Your task to perform on an android device: Show the shopping cart on ebay. Add asus zenbook to the cart on ebay Image 0: 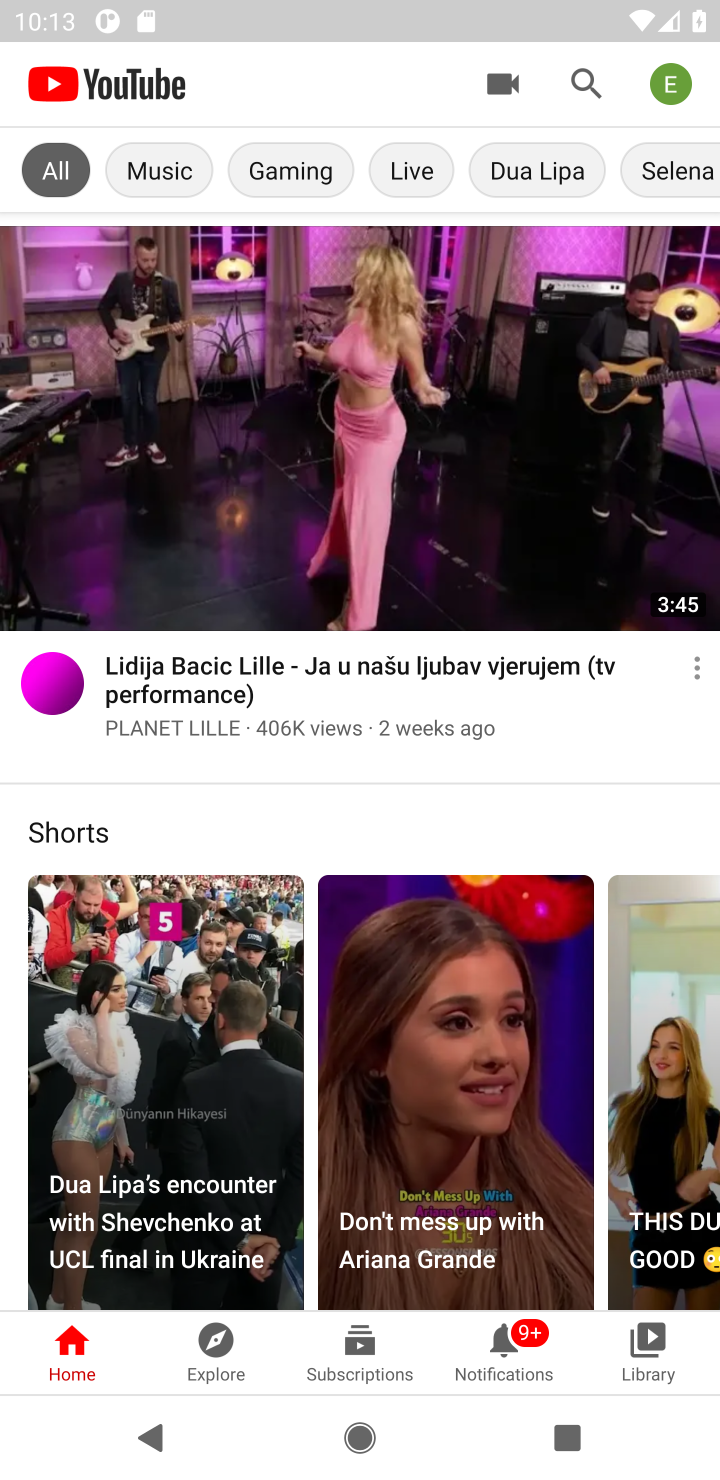
Step 0: press home button
Your task to perform on an android device: Show the shopping cart on ebay. Add asus zenbook to the cart on ebay Image 1: 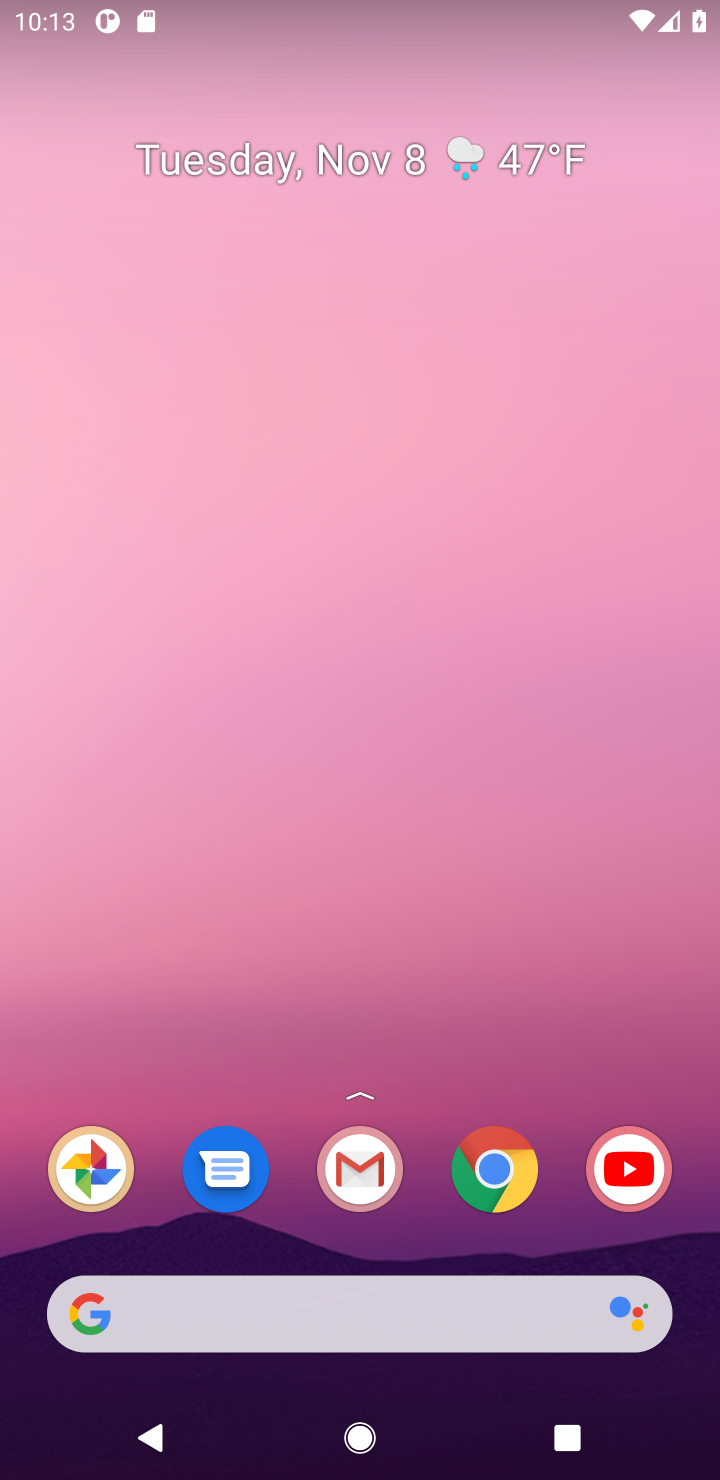
Step 1: click (495, 1170)
Your task to perform on an android device: Show the shopping cart on ebay. Add asus zenbook to the cart on ebay Image 2: 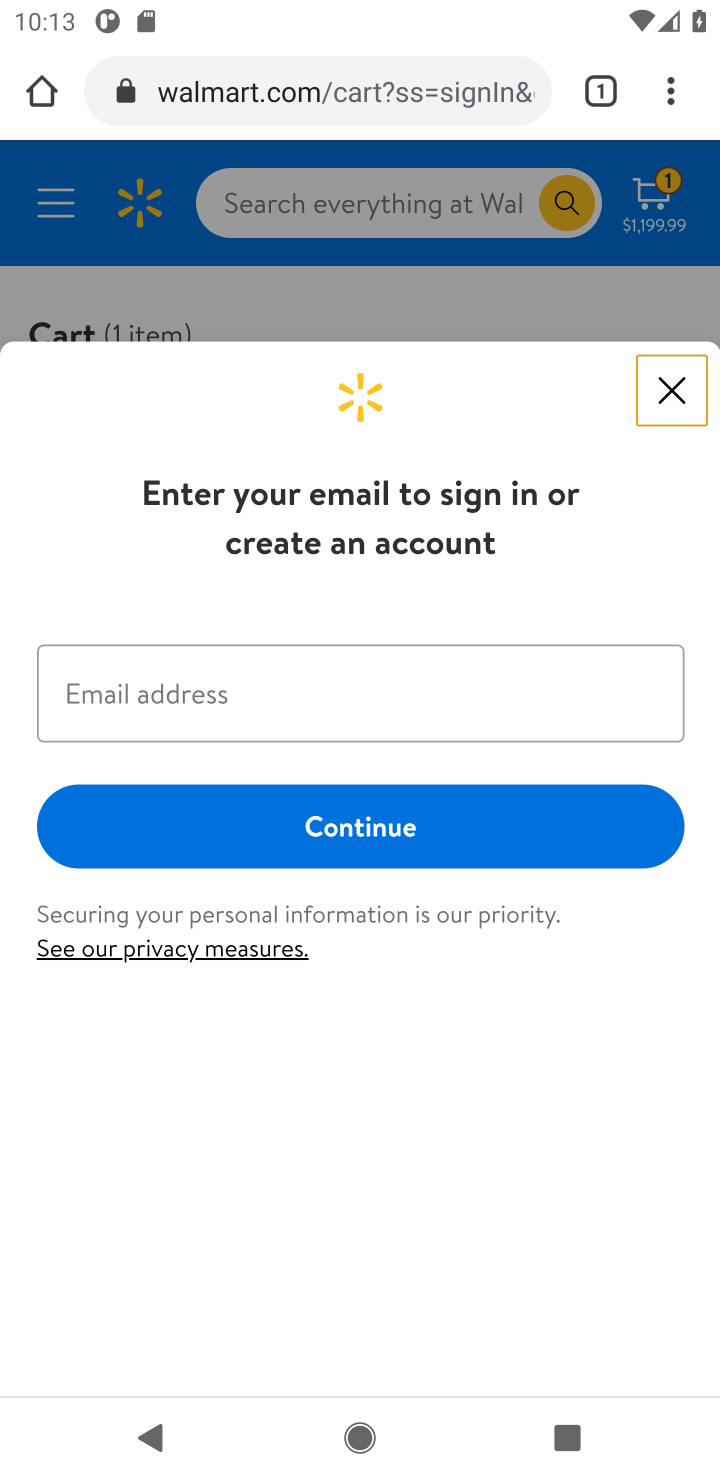
Step 2: click (403, 95)
Your task to perform on an android device: Show the shopping cart on ebay. Add asus zenbook to the cart on ebay Image 3: 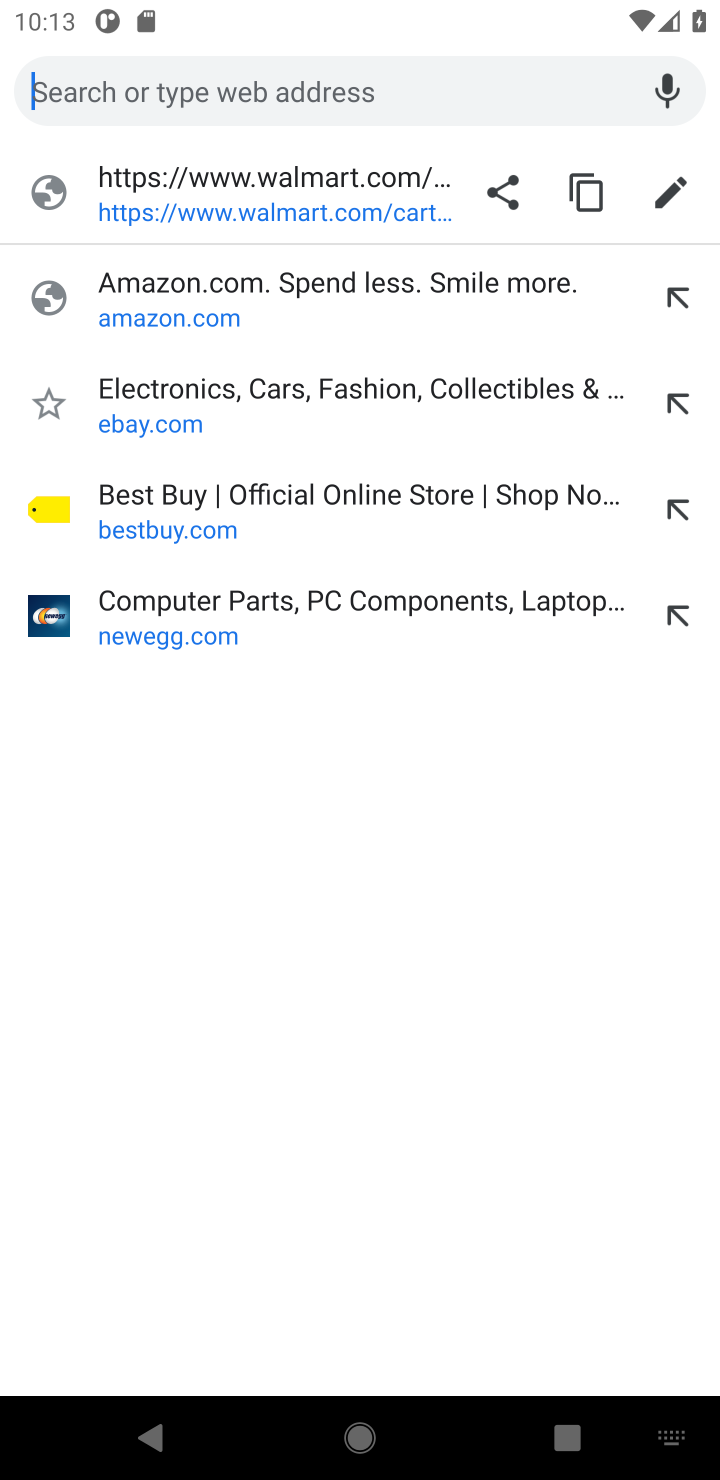
Step 3: type "ebay"
Your task to perform on an android device: Show the shopping cart on ebay. Add asus zenbook to the cart on ebay Image 4: 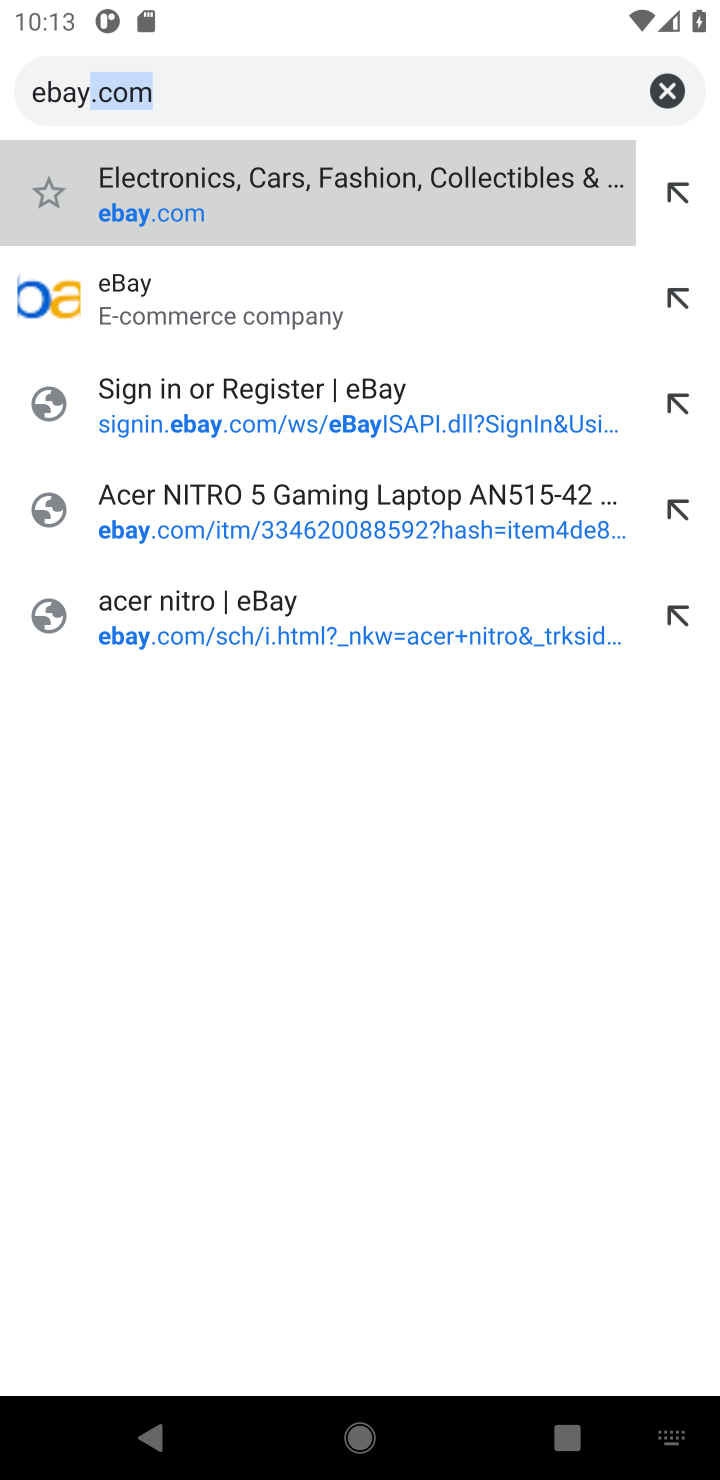
Step 4: click (429, 68)
Your task to perform on an android device: Show the shopping cart on ebay. Add asus zenbook to the cart on ebay Image 5: 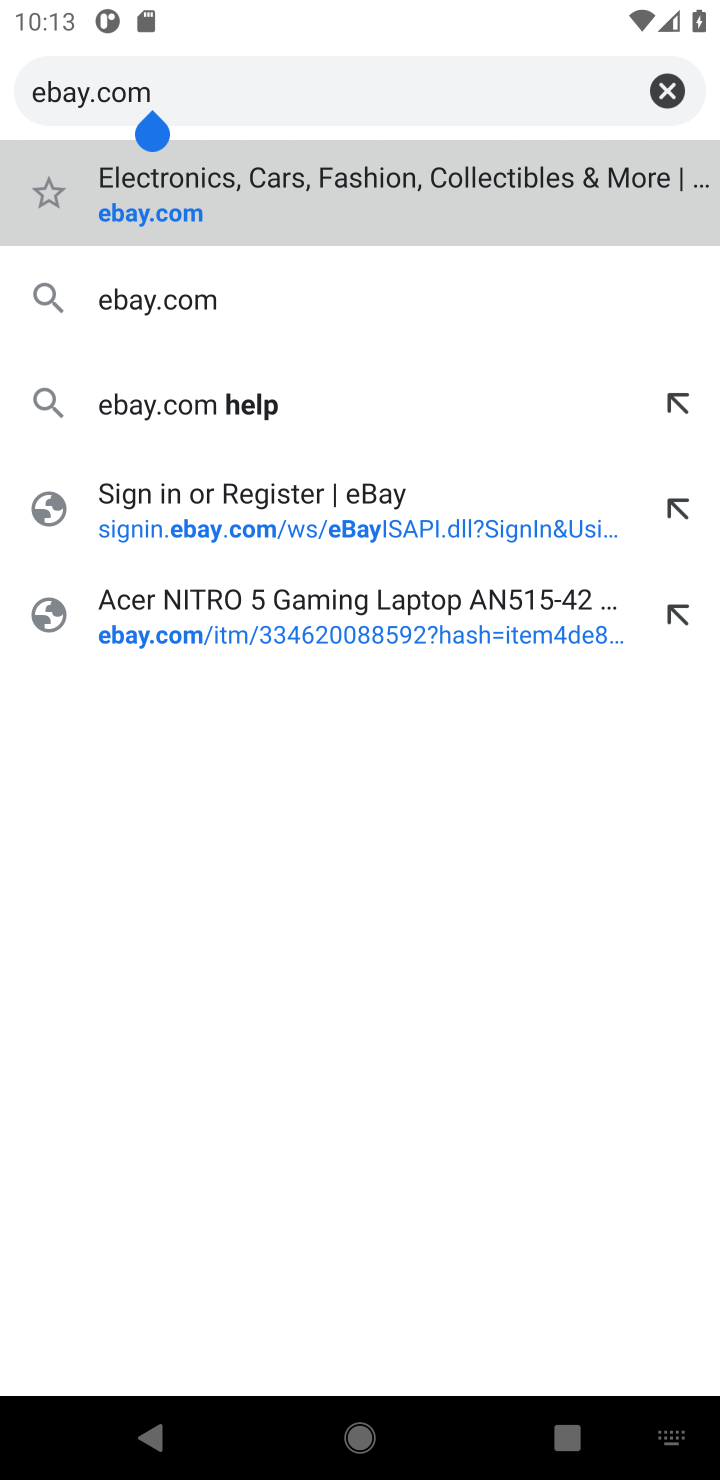
Step 5: click (211, 288)
Your task to perform on an android device: Show the shopping cart on ebay. Add asus zenbook to the cart on ebay Image 6: 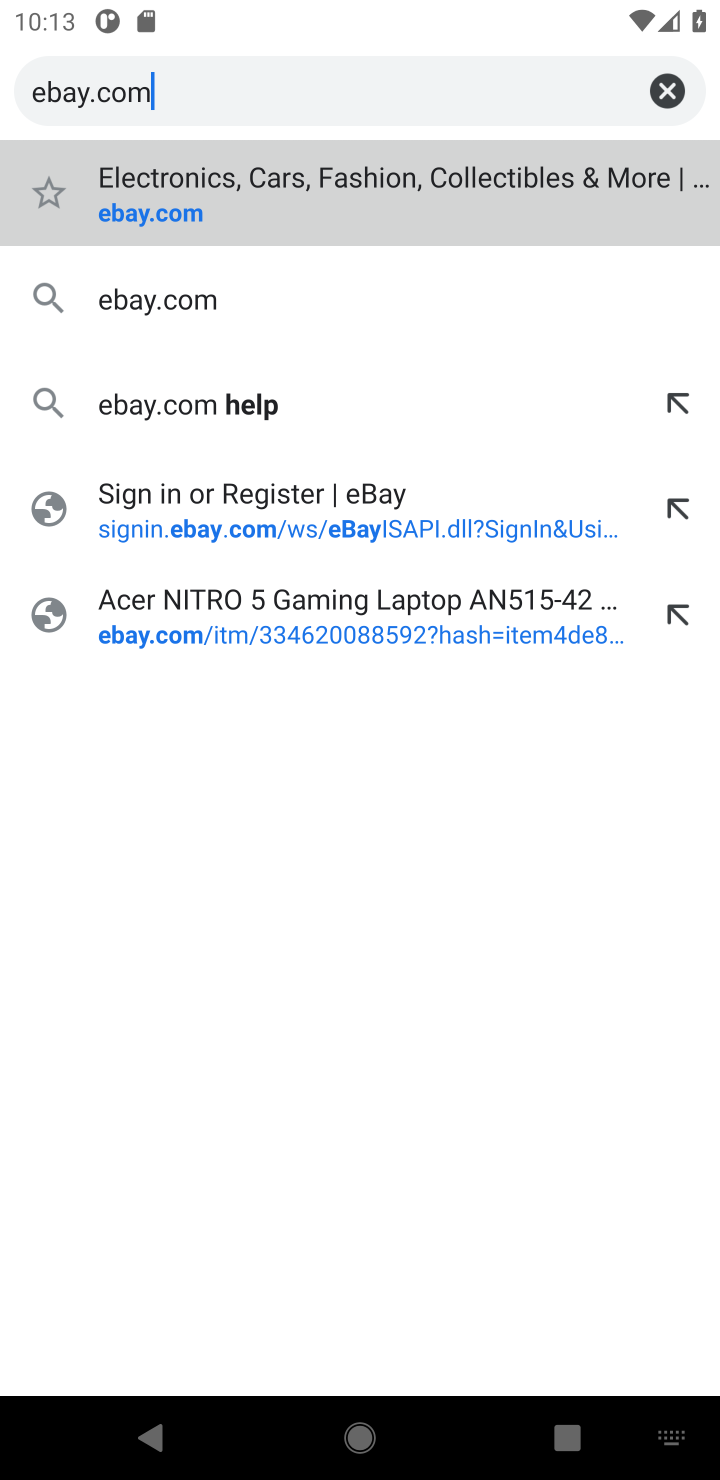
Step 6: click (156, 306)
Your task to perform on an android device: Show the shopping cart on ebay. Add asus zenbook to the cart on ebay Image 7: 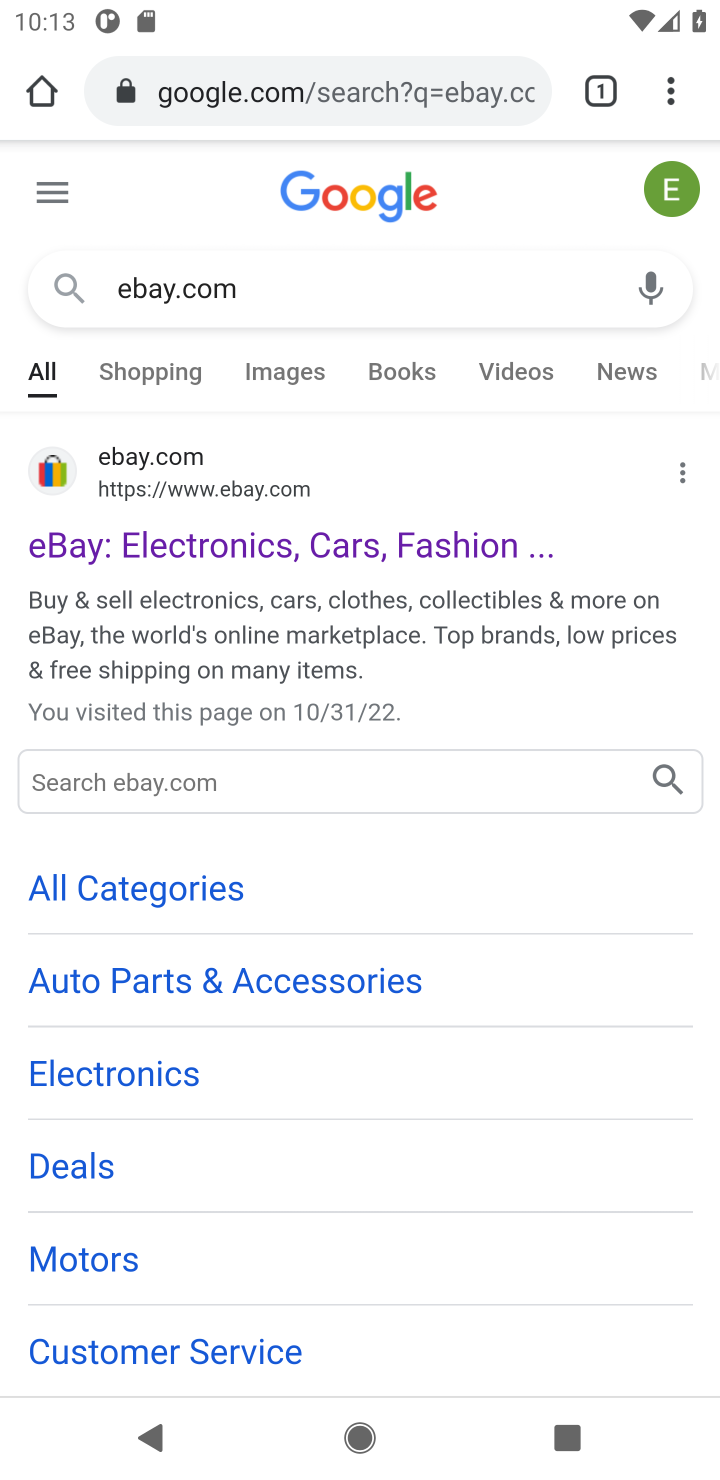
Step 7: click (230, 481)
Your task to perform on an android device: Show the shopping cart on ebay. Add asus zenbook to the cart on ebay Image 8: 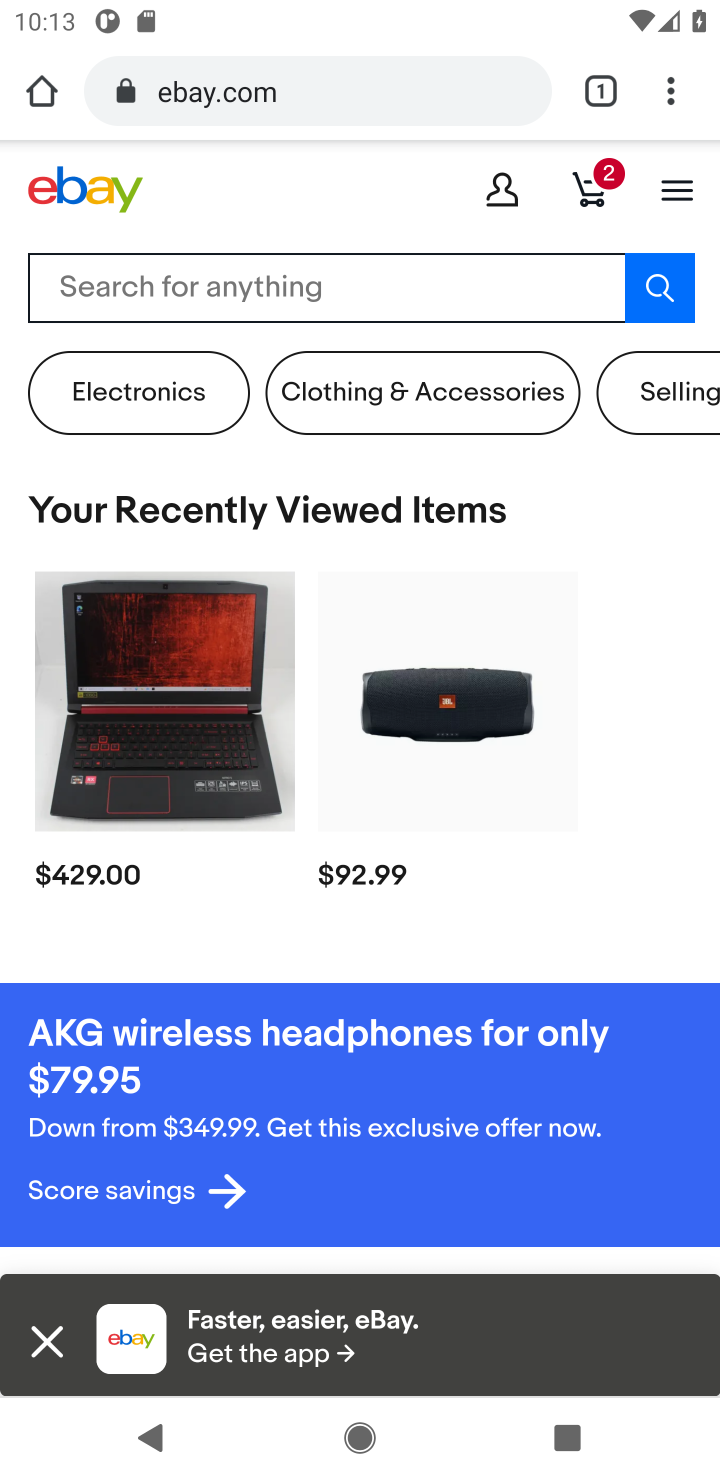
Step 8: click (590, 201)
Your task to perform on an android device: Show the shopping cart on ebay. Add asus zenbook to the cart on ebay Image 9: 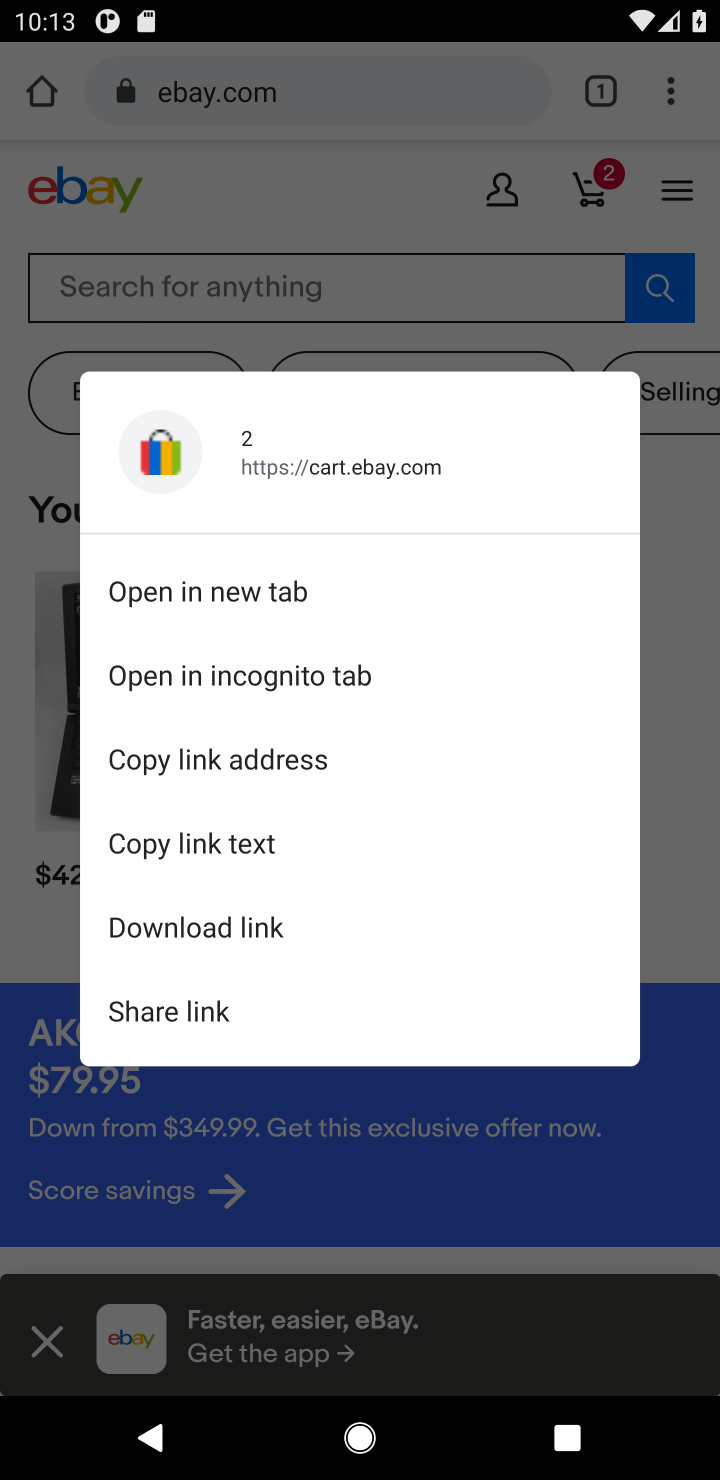
Step 9: click (330, 274)
Your task to perform on an android device: Show the shopping cart on ebay. Add asus zenbook to the cart on ebay Image 10: 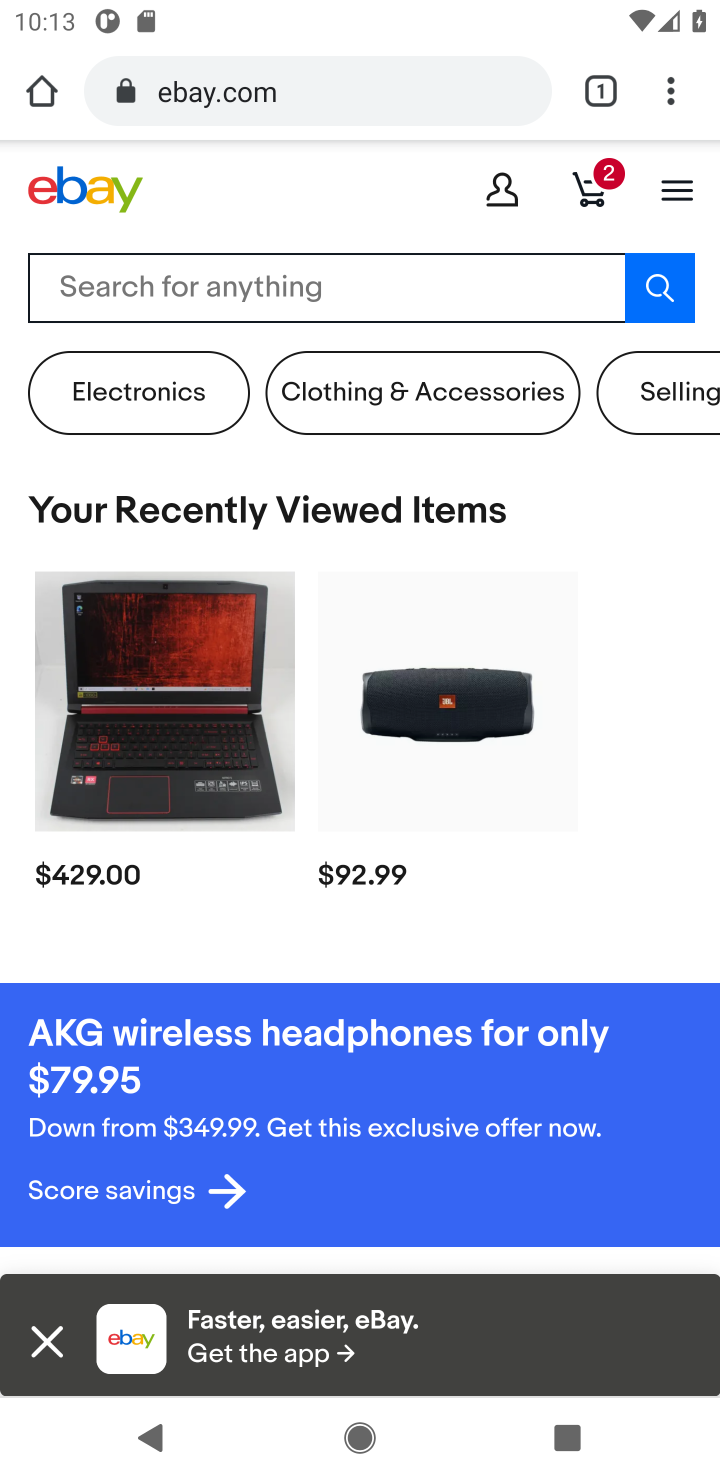
Step 10: click (330, 274)
Your task to perform on an android device: Show the shopping cart on ebay. Add asus zenbook to the cart on ebay Image 11: 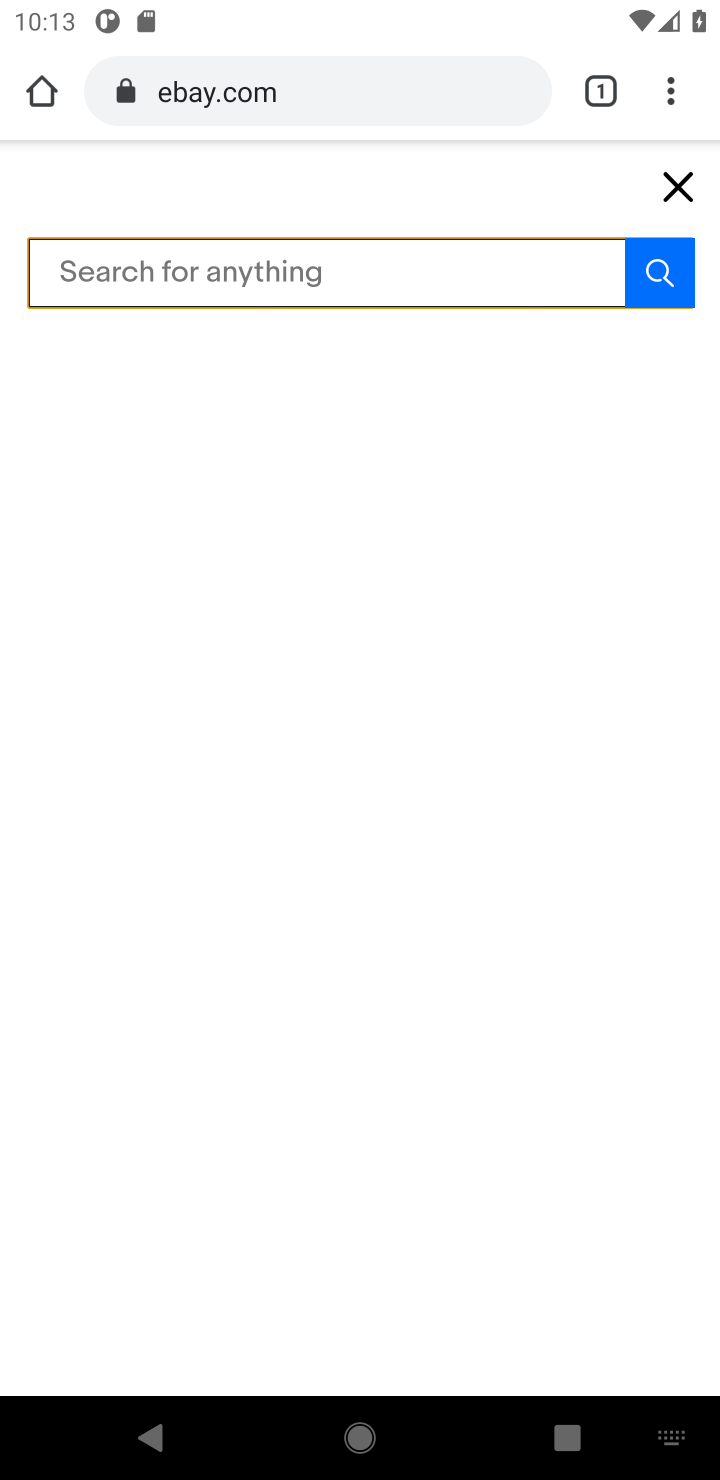
Step 11: type "asus zenbook"
Your task to perform on an android device: Show the shopping cart on ebay. Add asus zenbook to the cart on ebay Image 12: 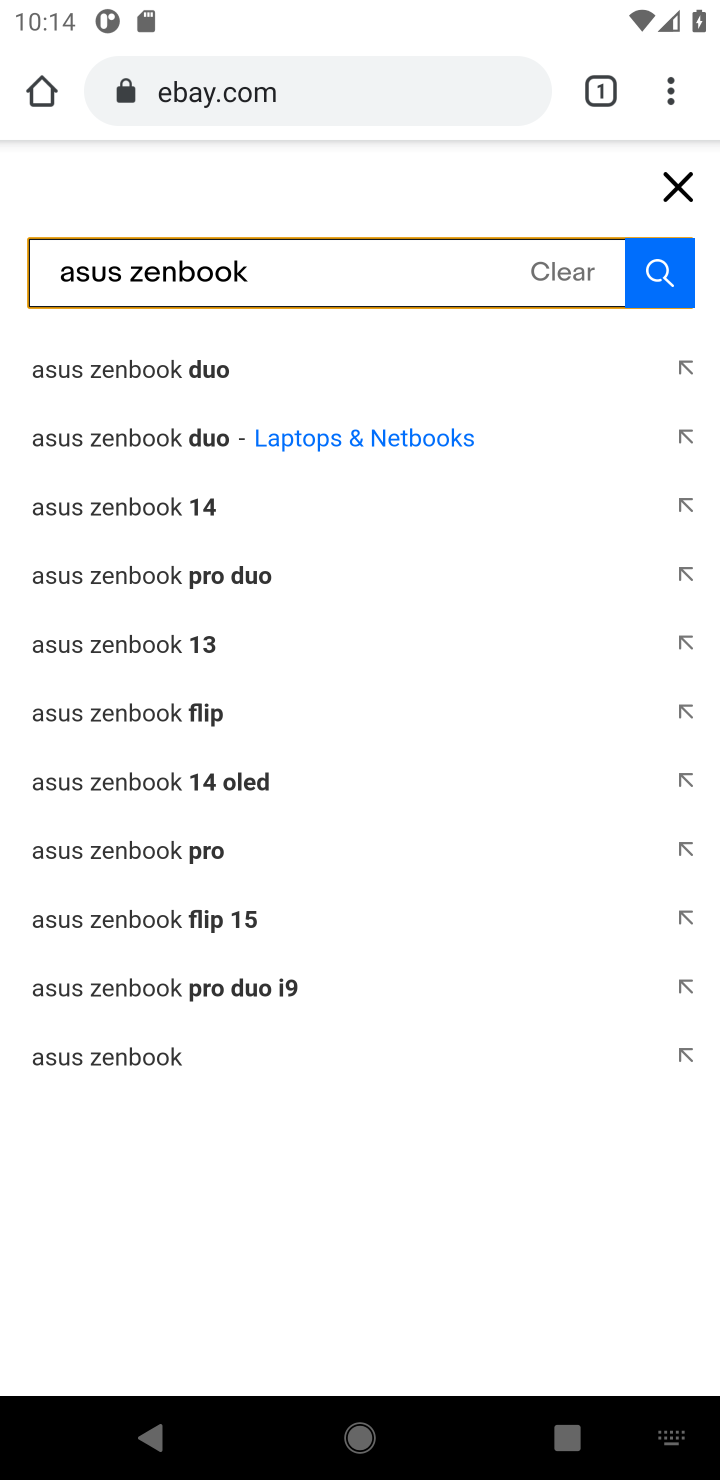
Step 12: click (151, 1046)
Your task to perform on an android device: Show the shopping cart on ebay. Add asus zenbook to the cart on ebay Image 13: 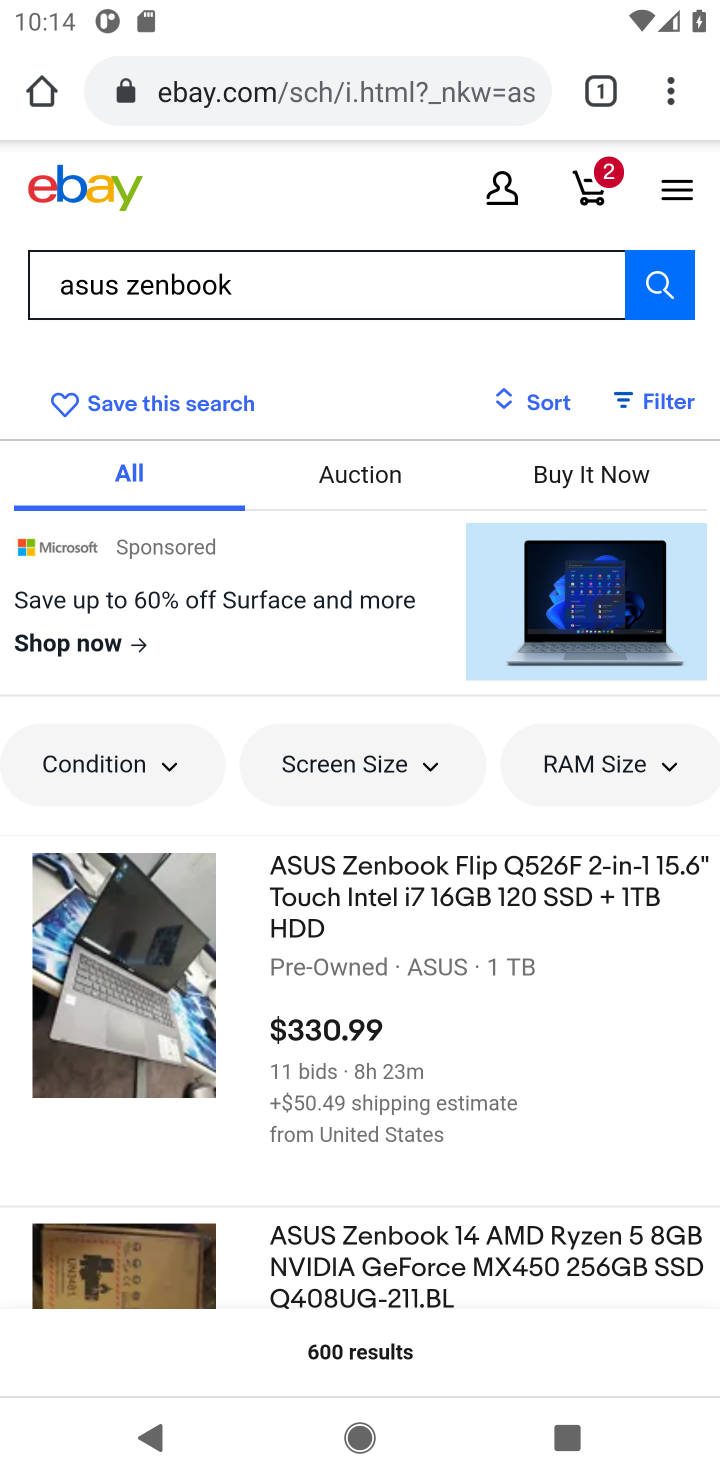
Step 13: click (129, 965)
Your task to perform on an android device: Show the shopping cart on ebay. Add asus zenbook to the cart on ebay Image 14: 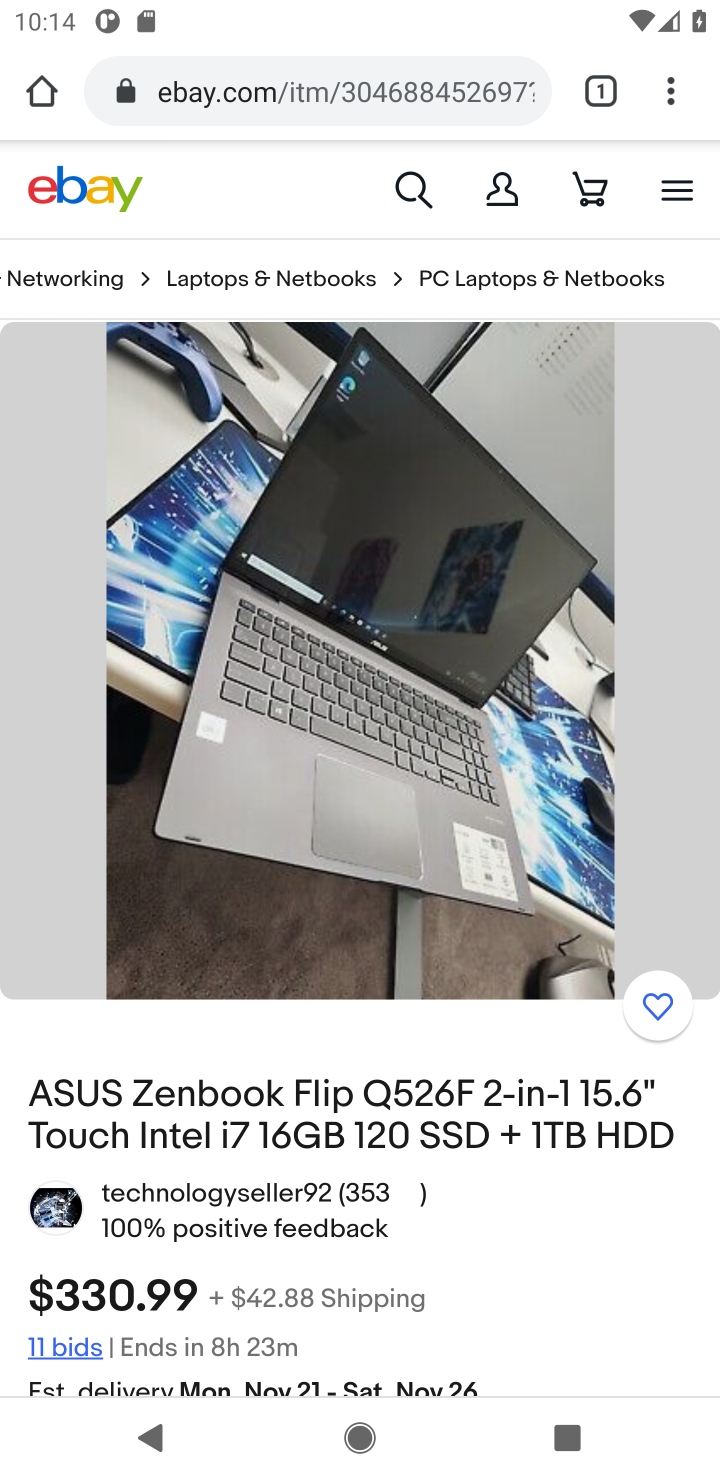
Step 14: drag from (571, 1048) to (495, 577)
Your task to perform on an android device: Show the shopping cart on ebay. Add asus zenbook to the cart on ebay Image 15: 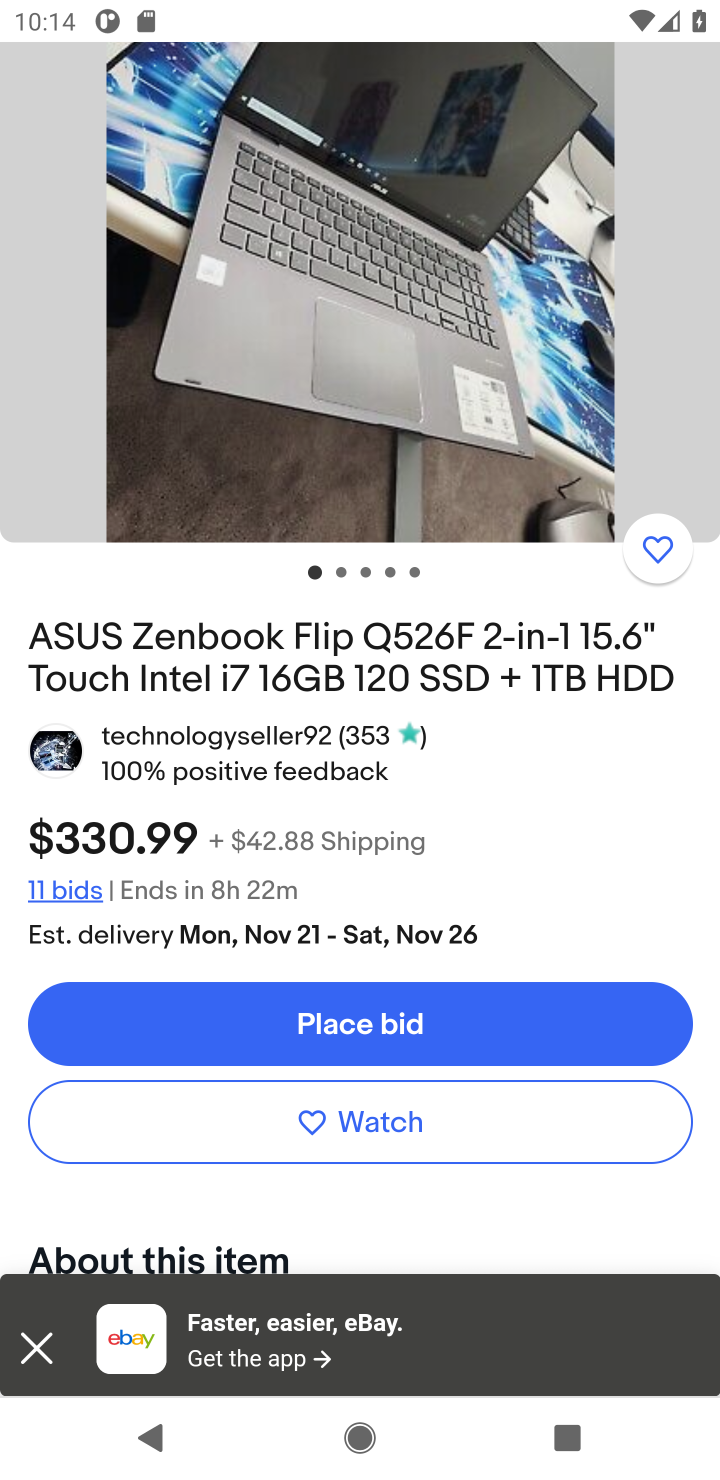
Step 15: press back button
Your task to perform on an android device: Show the shopping cart on ebay. Add asus zenbook to the cart on ebay Image 16: 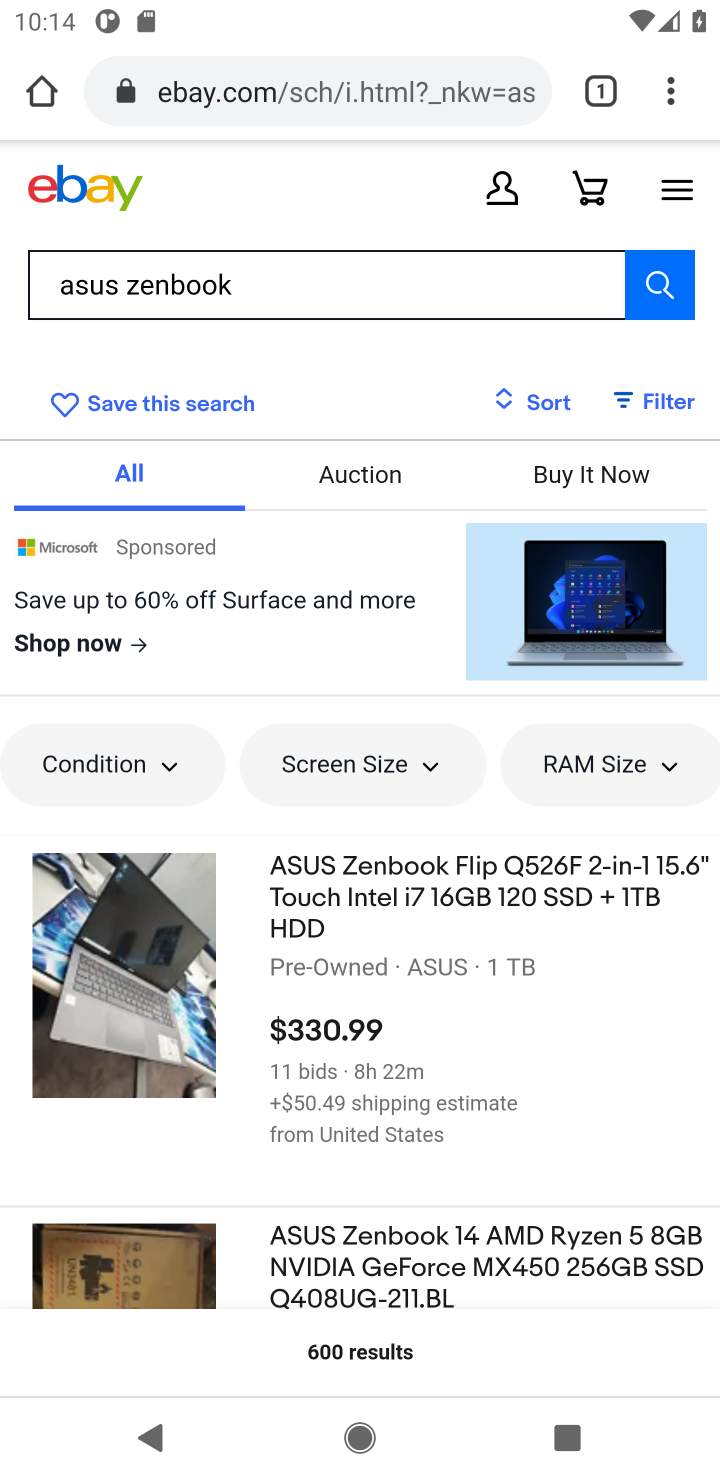
Step 16: drag from (152, 1132) to (212, 555)
Your task to perform on an android device: Show the shopping cart on ebay. Add asus zenbook to the cart on ebay Image 17: 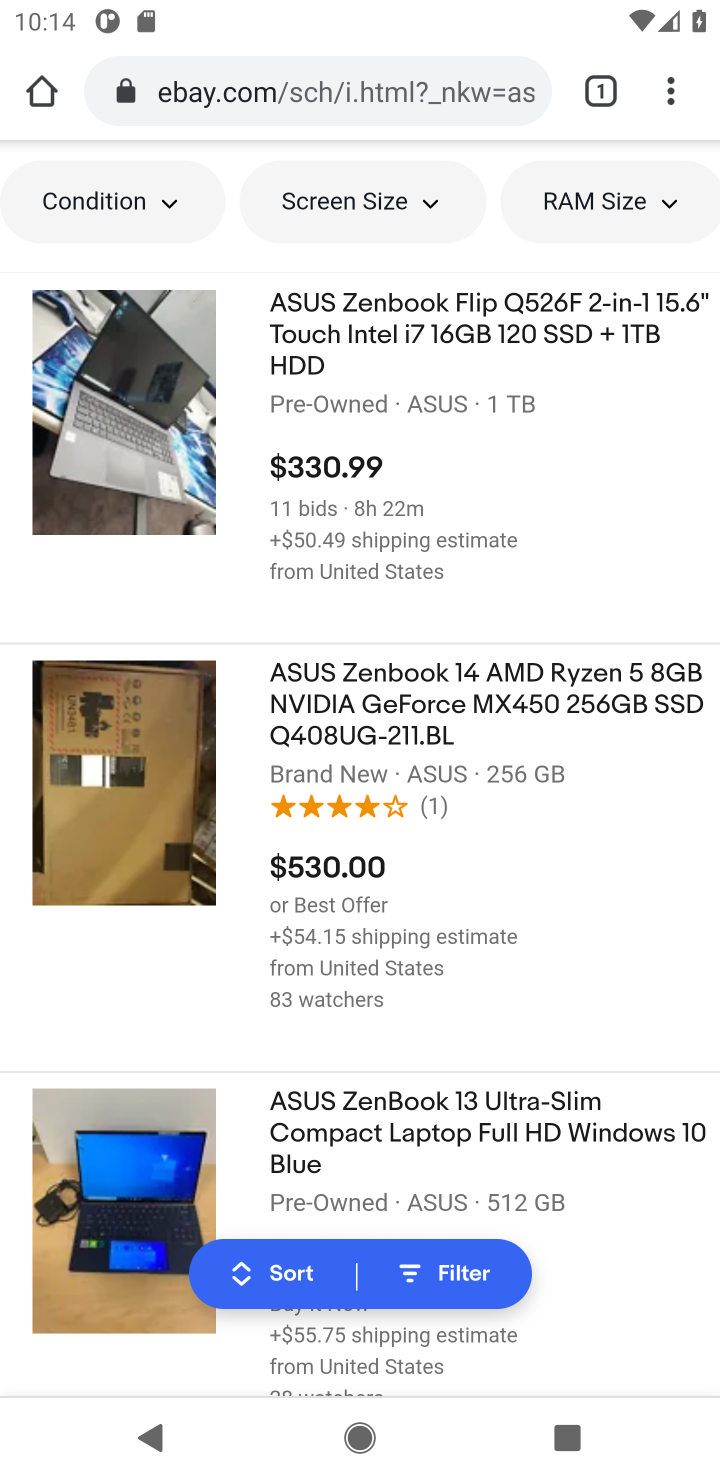
Step 17: click (129, 791)
Your task to perform on an android device: Show the shopping cart on ebay. Add asus zenbook to the cart on ebay Image 18: 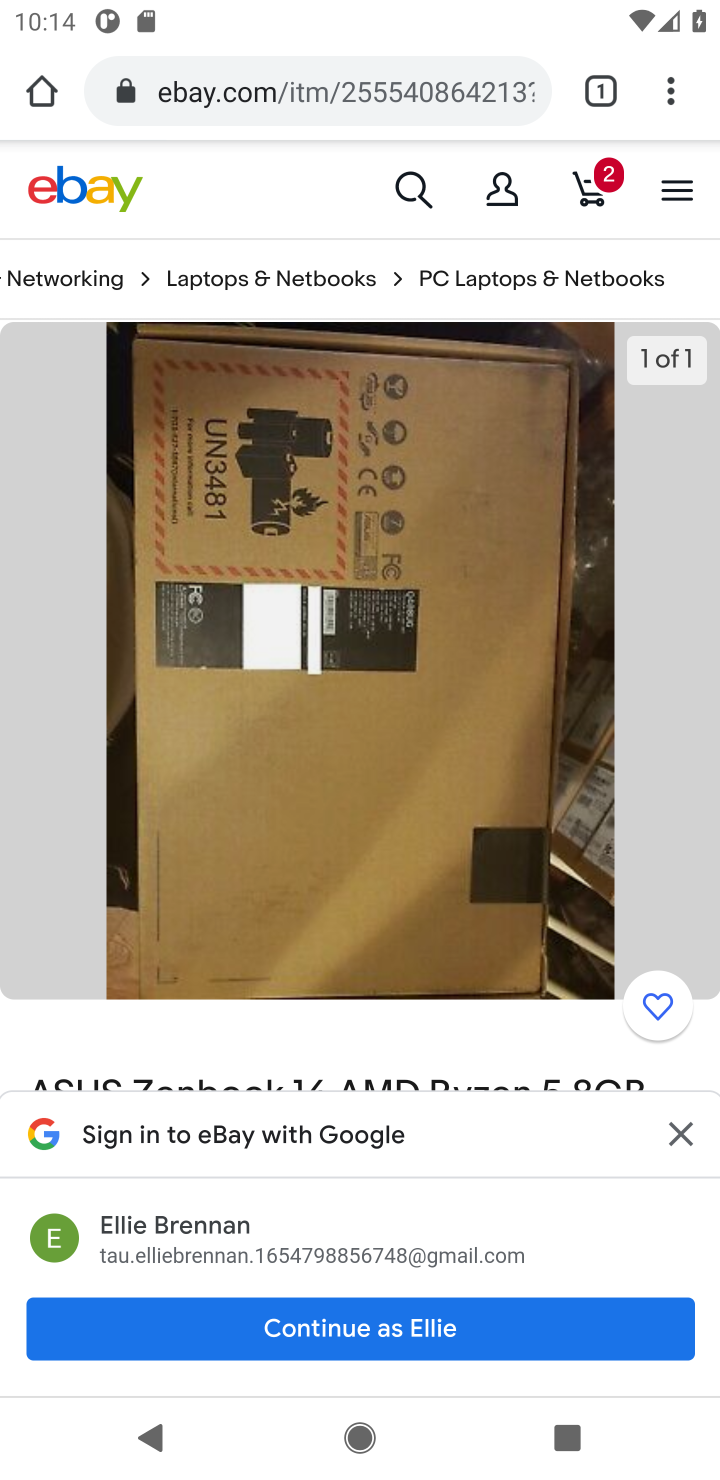
Step 18: press back button
Your task to perform on an android device: Show the shopping cart on ebay. Add asus zenbook to the cart on ebay Image 19: 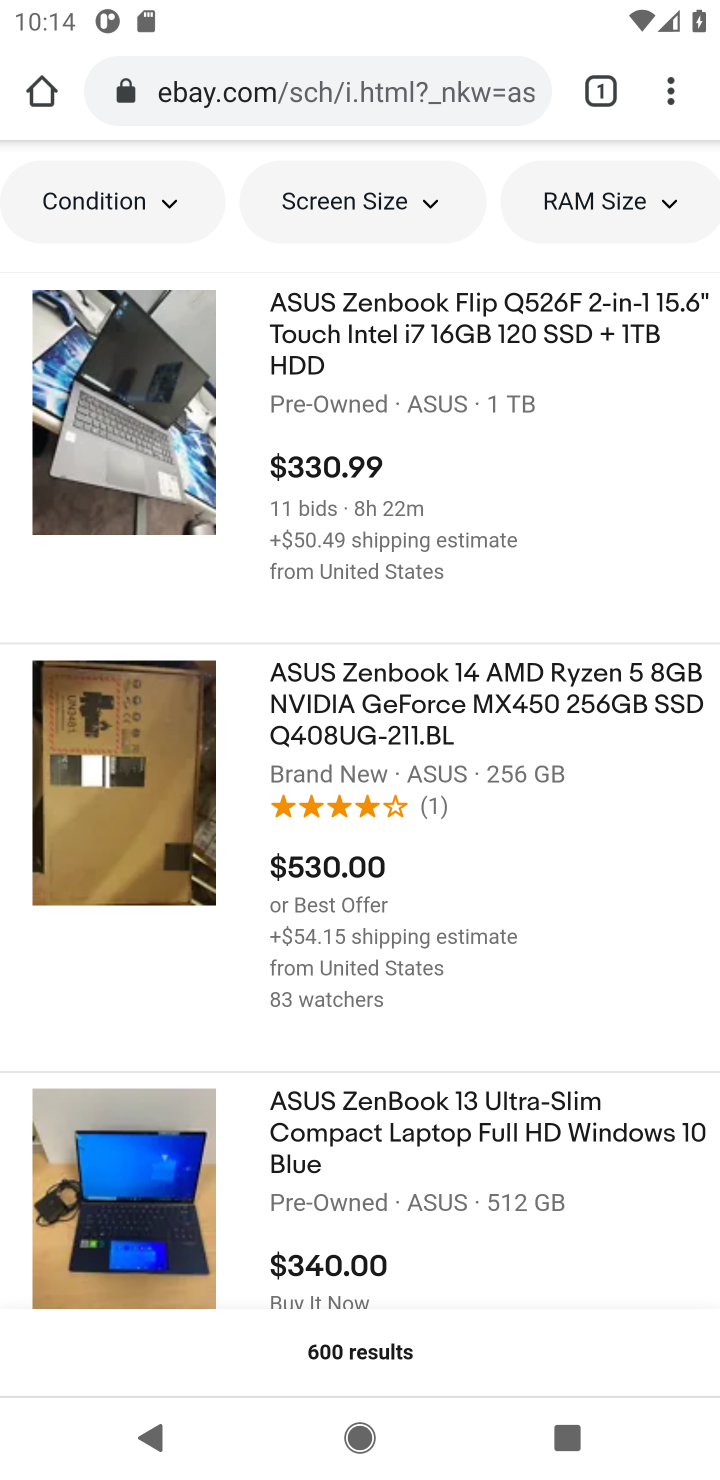
Step 19: click (161, 1156)
Your task to perform on an android device: Show the shopping cart on ebay. Add asus zenbook to the cart on ebay Image 20: 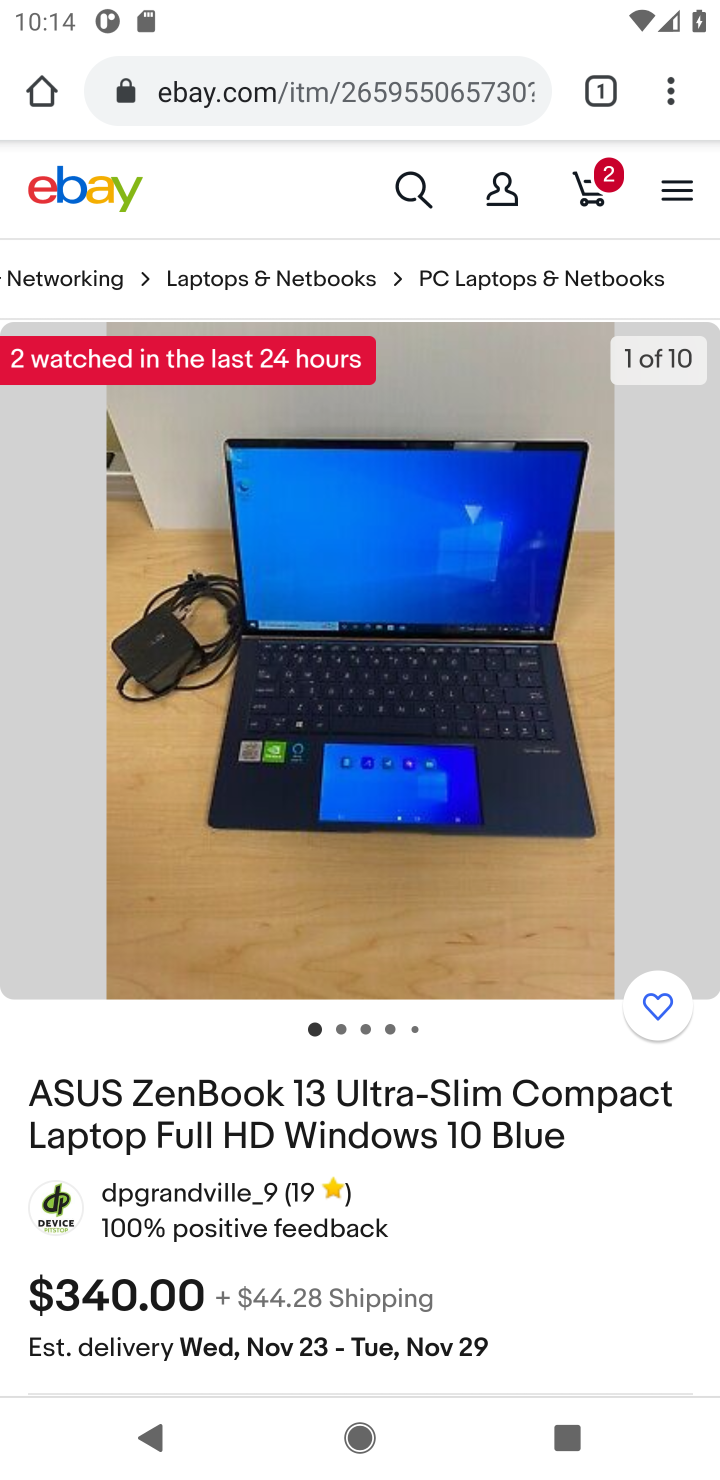
Step 20: drag from (505, 741) to (567, 357)
Your task to perform on an android device: Show the shopping cart on ebay. Add asus zenbook to the cart on ebay Image 21: 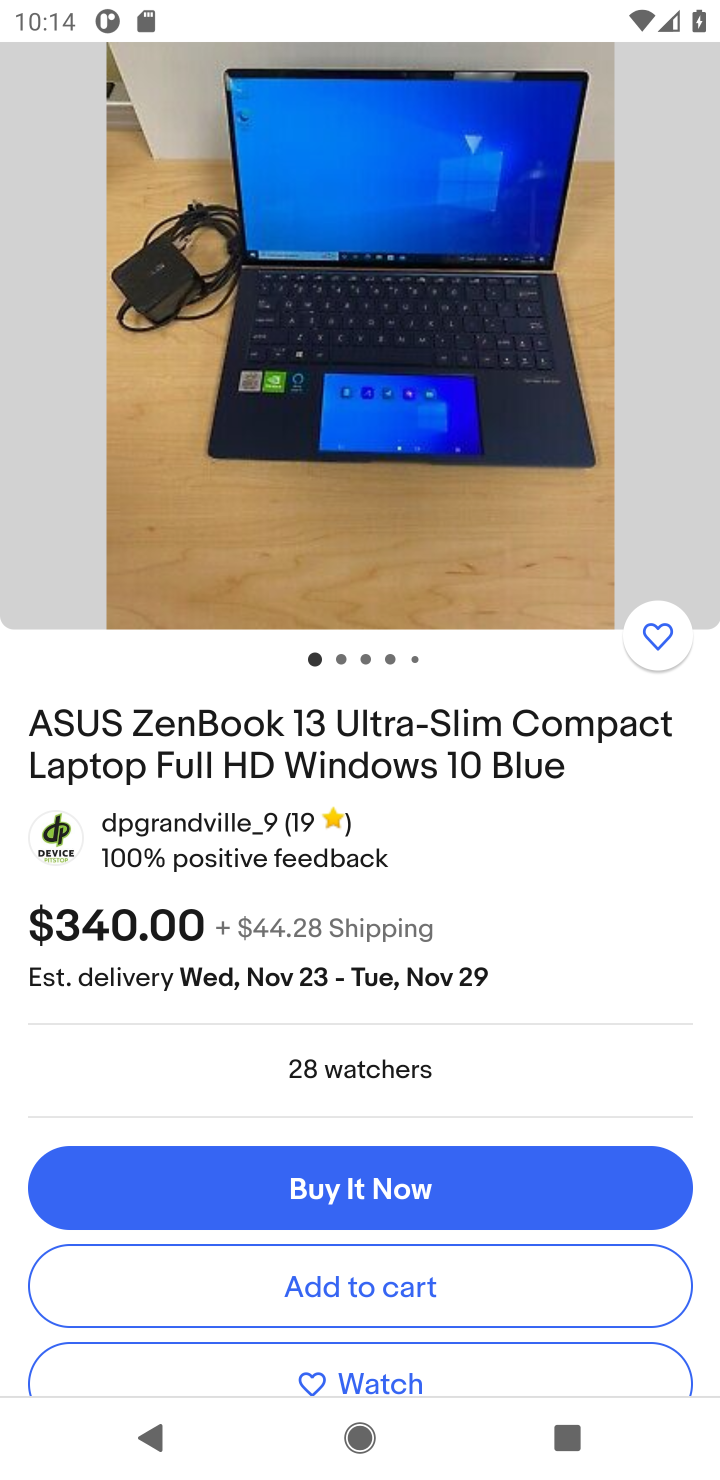
Step 21: click (401, 1282)
Your task to perform on an android device: Show the shopping cart on ebay. Add asus zenbook to the cart on ebay Image 22: 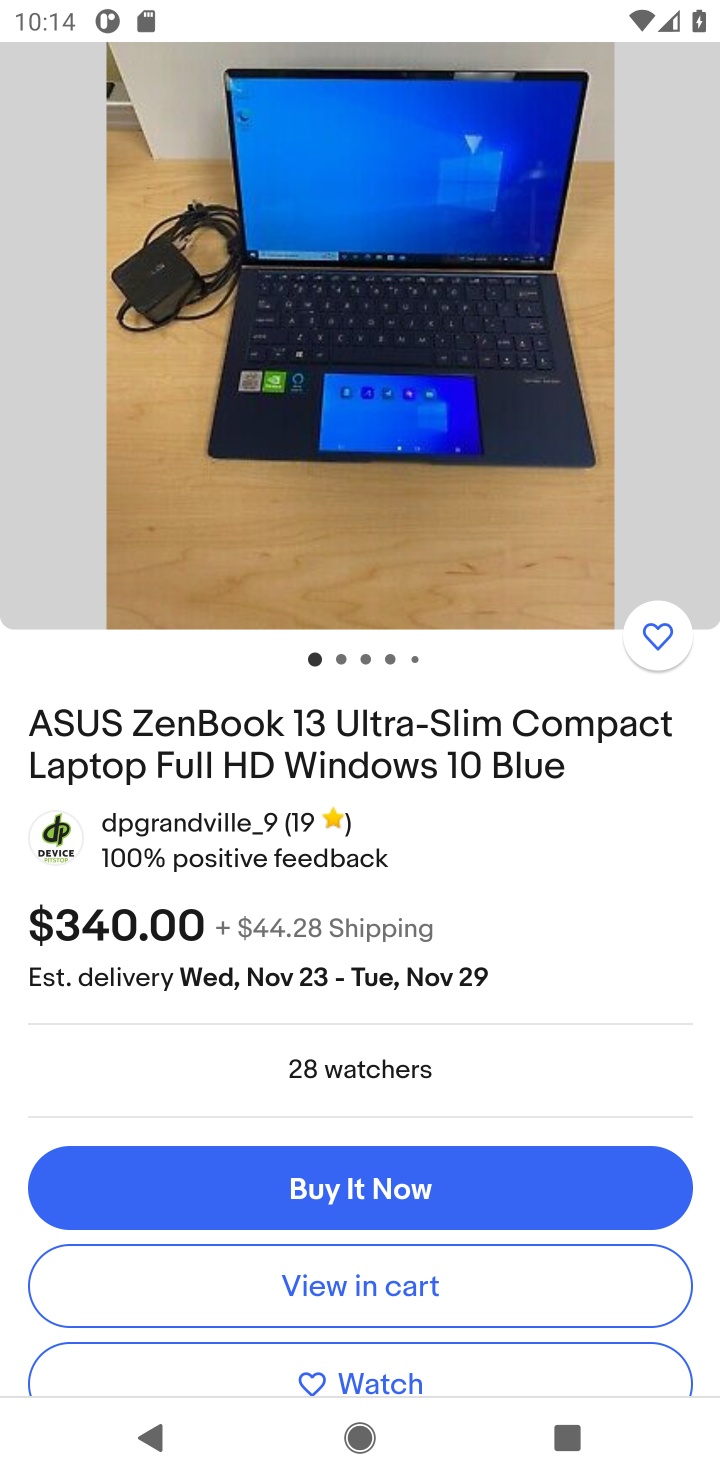
Step 22: task complete